Your task to perform on an android device: Search for rayovac triple a on bestbuy.com, select the first entry, add it to the cart, then select checkout. Image 0: 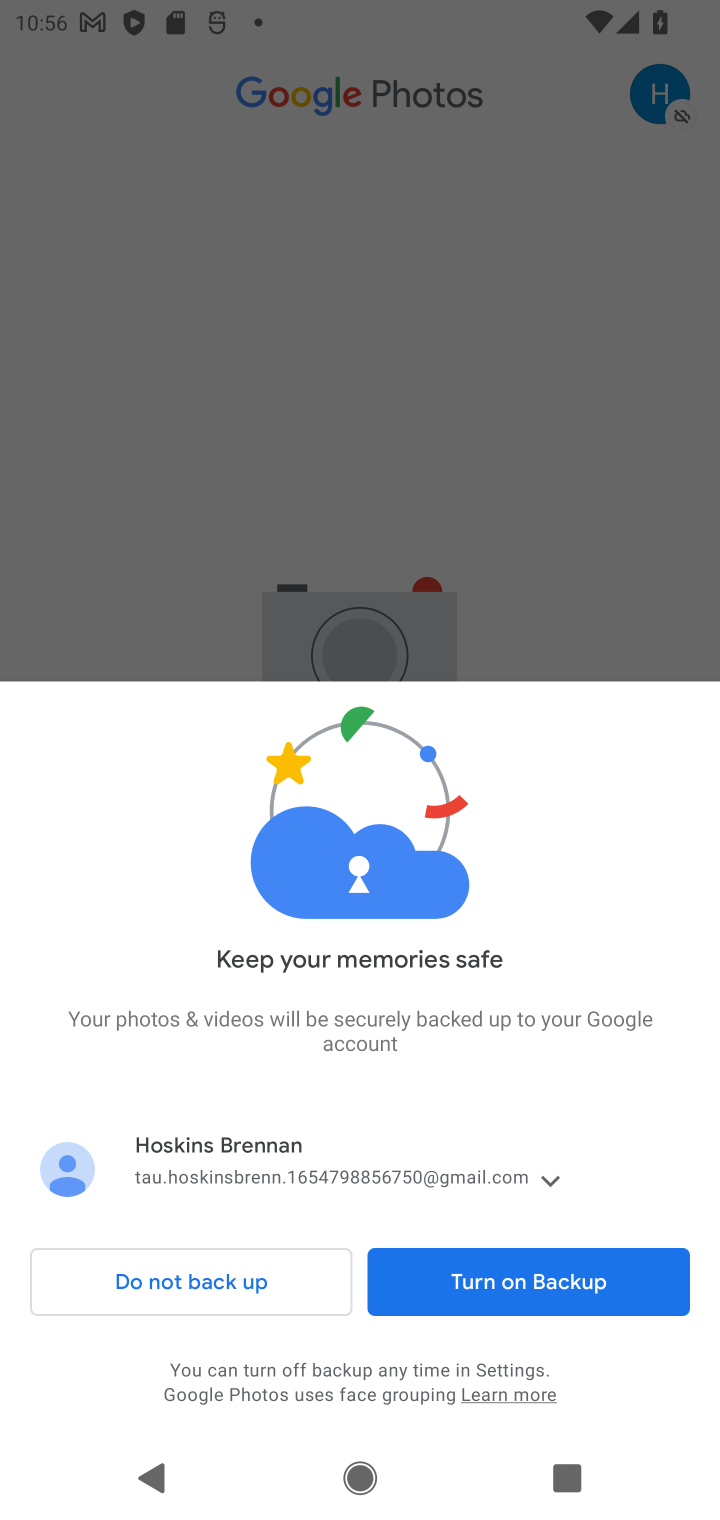
Step 0: press home button
Your task to perform on an android device: Search for rayovac triple a on bestbuy.com, select the first entry, add it to the cart, then select checkout. Image 1: 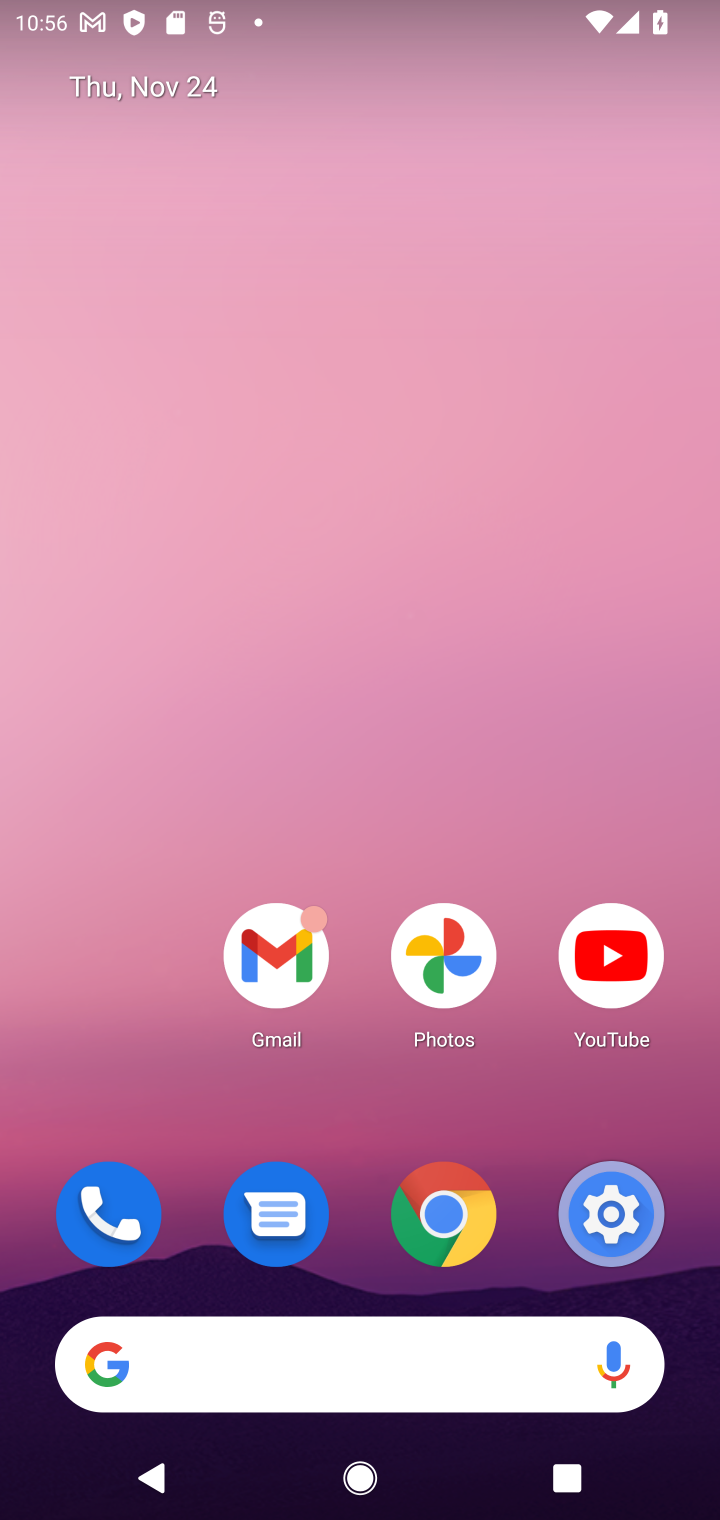
Step 1: click (251, 1340)
Your task to perform on an android device: Search for rayovac triple a on bestbuy.com, select the first entry, add it to the cart, then select checkout. Image 2: 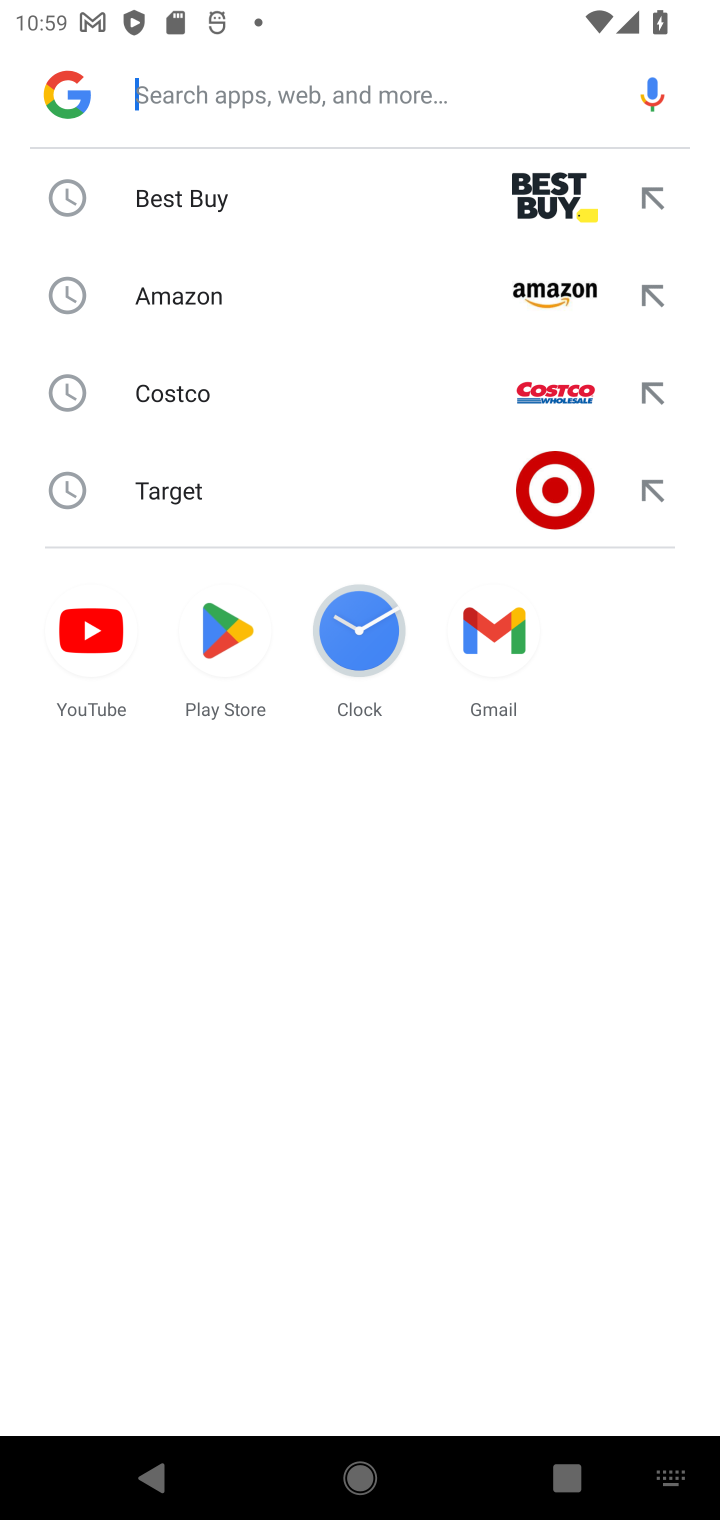
Step 2: click (251, 207)
Your task to perform on an android device: Search for rayovac triple a on bestbuy.com, select the first entry, add it to the cart, then select checkout. Image 3: 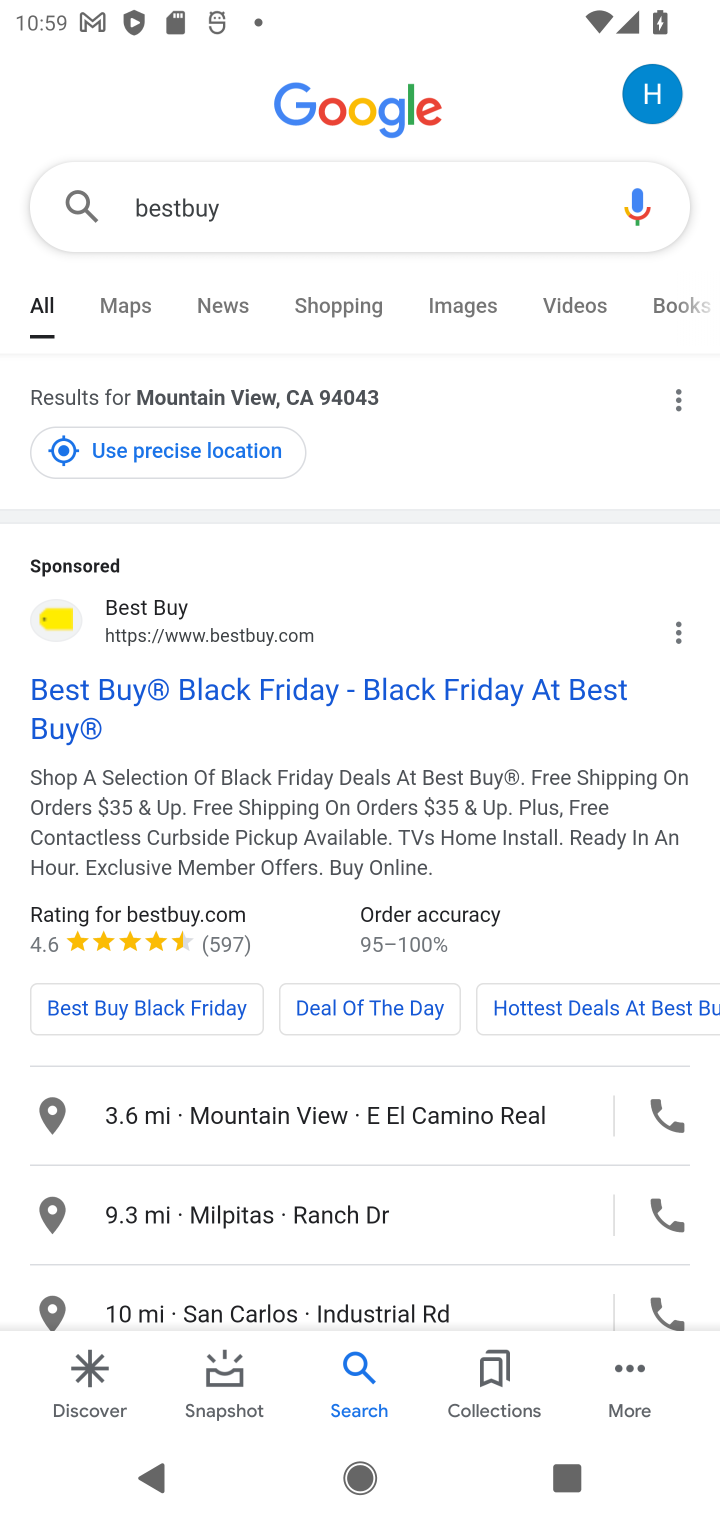
Step 3: click (146, 684)
Your task to perform on an android device: Search for rayovac triple a on bestbuy.com, select the first entry, add it to the cart, then select checkout. Image 4: 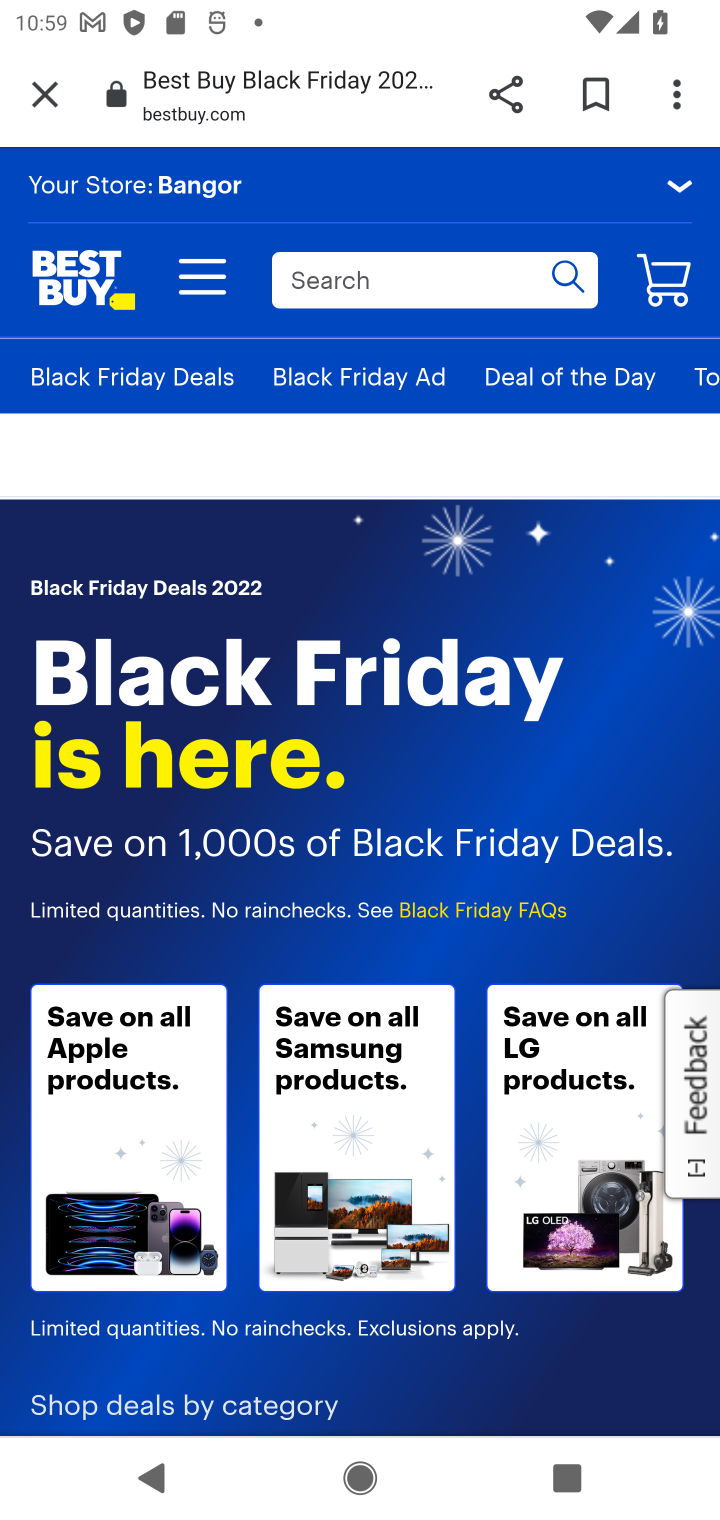
Step 4: task complete